Your task to perform on an android device: toggle notification dots Image 0: 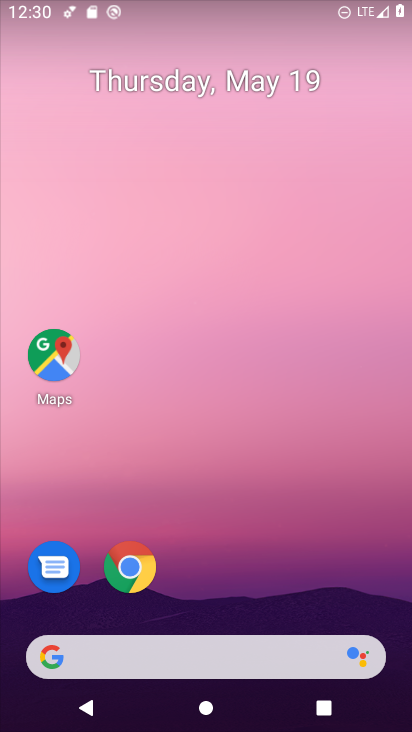
Step 0: drag from (262, 497) to (253, 78)
Your task to perform on an android device: toggle notification dots Image 1: 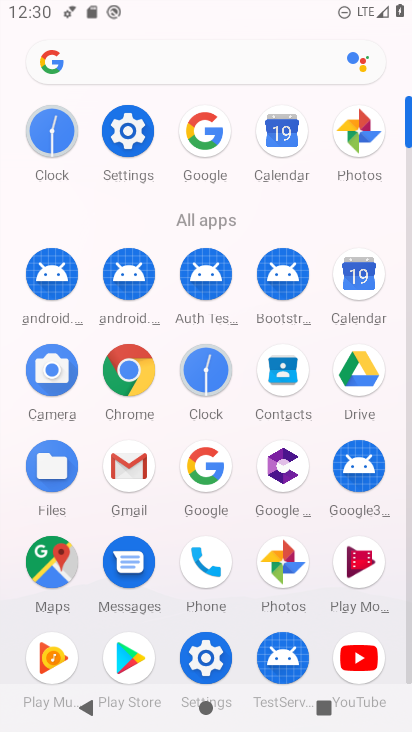
Step 1: click (127, 130)
Your task to perform on an android device: toggle notification dots Image 2: 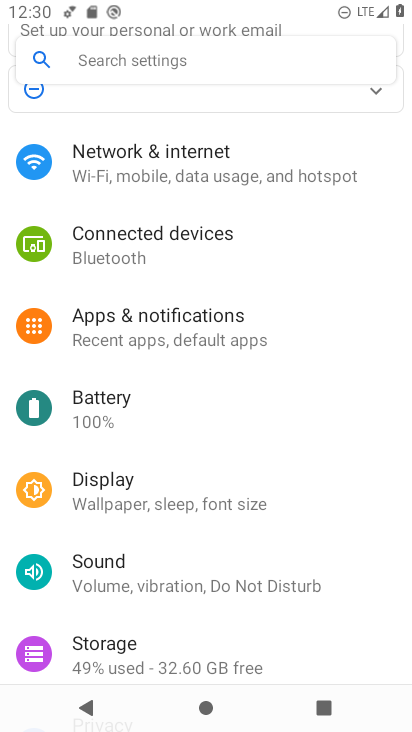
Step 2: click (215, 326)
Your task to perform on an android device: toggle notification dots Image 3: 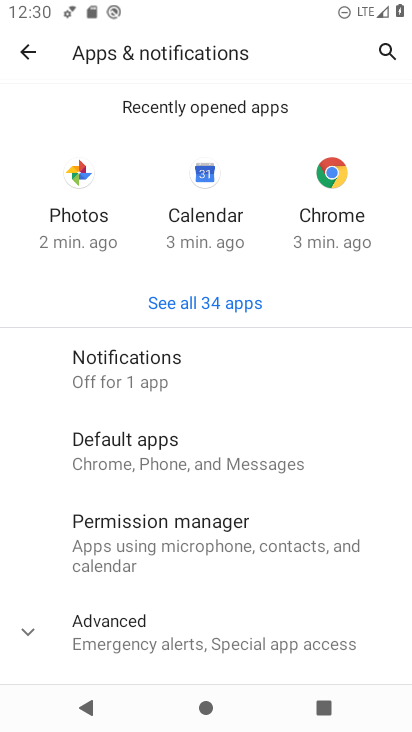
Step 3: click (218, 364)
Your task to perform on an android device: toggle notification dots Image 4: 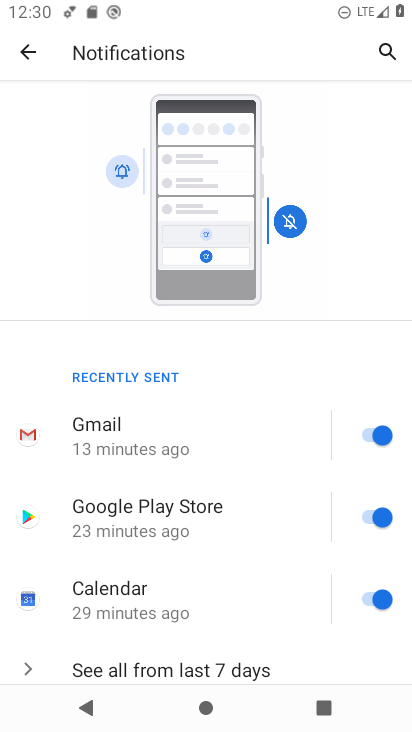
Step 4: drag from (248, 561) to (243, 263)
Your task to perform on an android device: toggle notification dots Image 5: 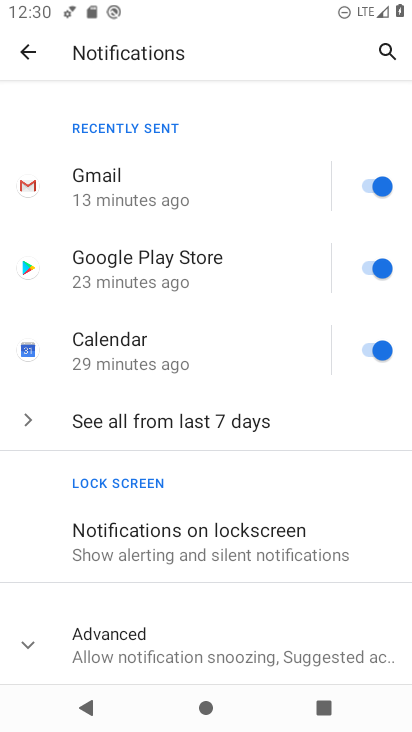
Step 5: click (27, 646)
Your task to perform on an android device: toggle notification dots Image 6: 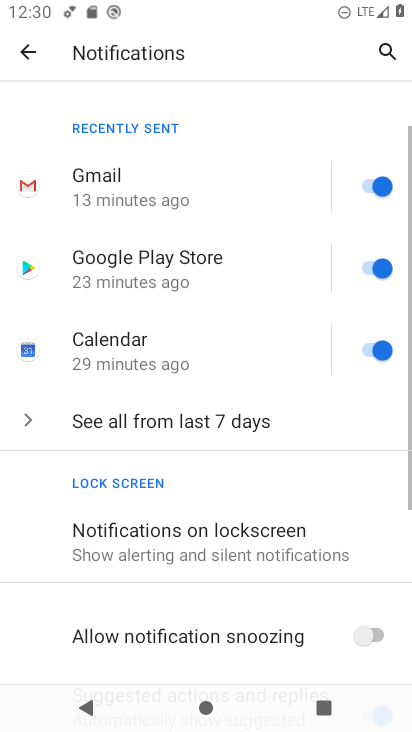
Step 6: drag from (231, 520) to (249, 172)
Your task to perform on an android device: toggle notification dots Image 7: 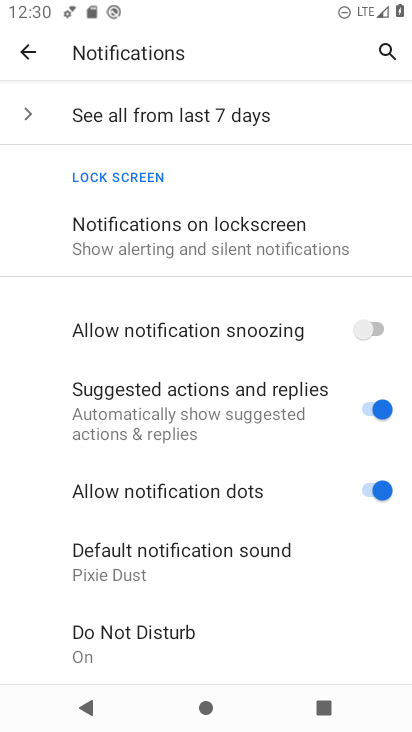
Step 7: click (357, 482)
Your task to perform on an android device: toggle notification dots Image 8: 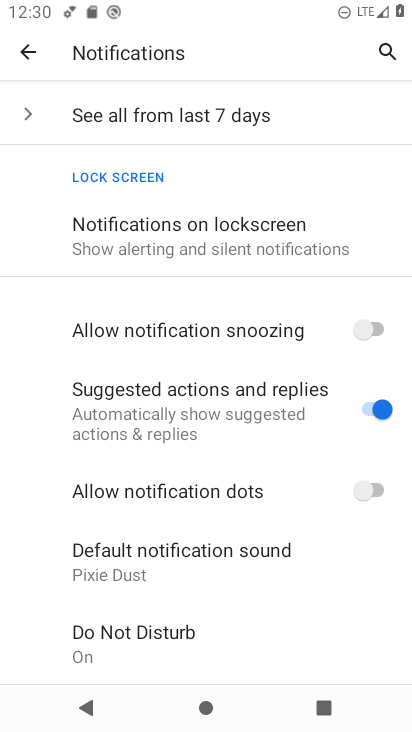
Step 8: task complete